Your task to perform on an android device: change alarm snooze length Image 0: 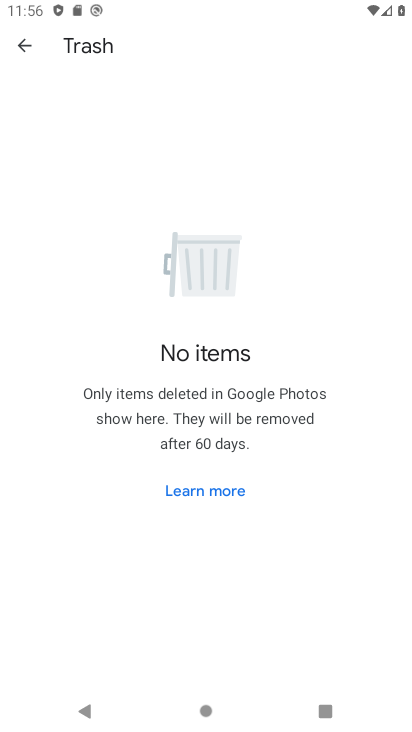
Step 0: press home button
Your task to perform on an android device: change alarm snooze length Image 1: 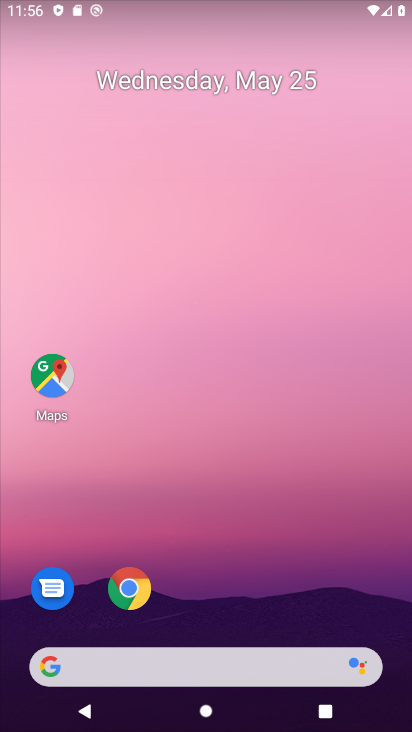
Step 1: drag from (164, 647) to (289, 130)
Your task to perform on an android device: change alarm snooze length Image 2: 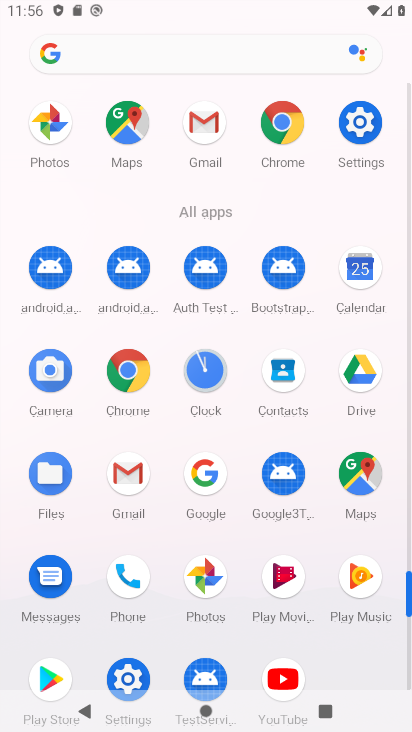
Step 2: click (200, 381)
Your task to perform on an android device: change alarm snooze length Image 3: 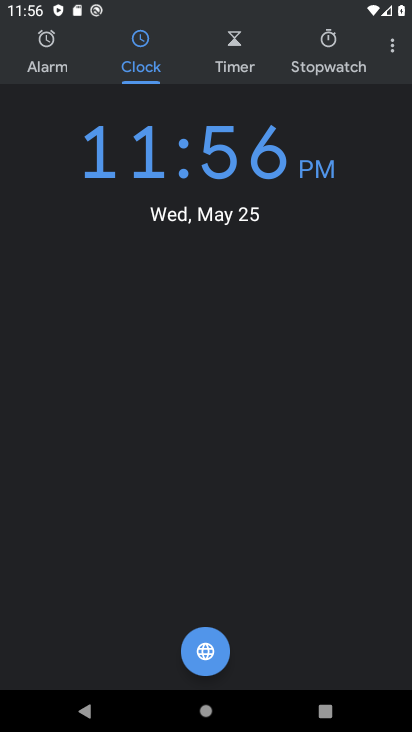
Step 3: click (402, 52)
Your task to perform on an android device: change alarm snooze length Image 4: 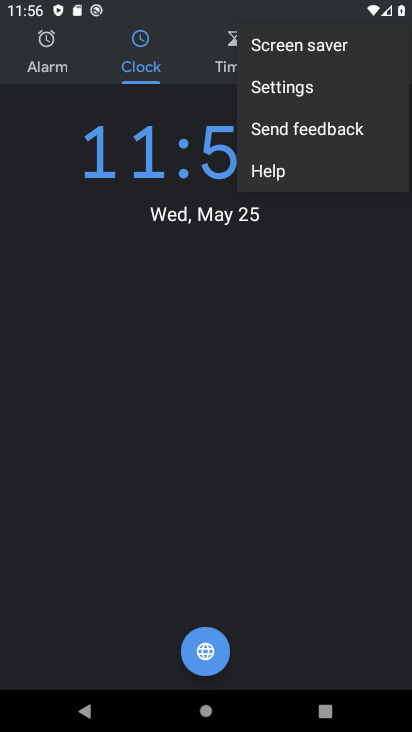
Step 4: click (366, 88)
Your task to perform on an android device: change alarm snooze length Image 5: 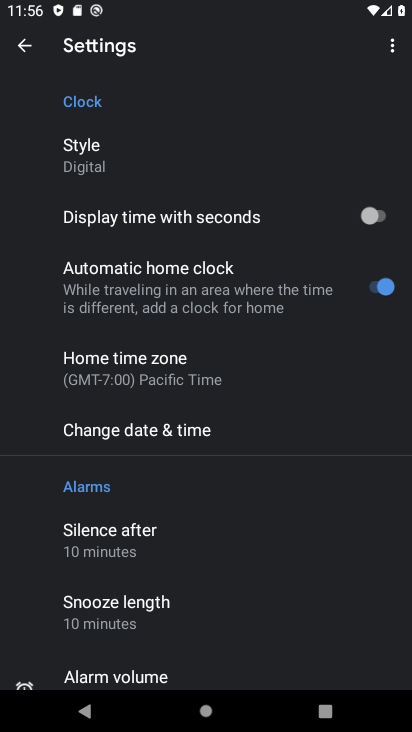
Step 5: drag from (244, 584) to (371, 269)
Your task to perform on an android device: change alarm snooze length Image 6: 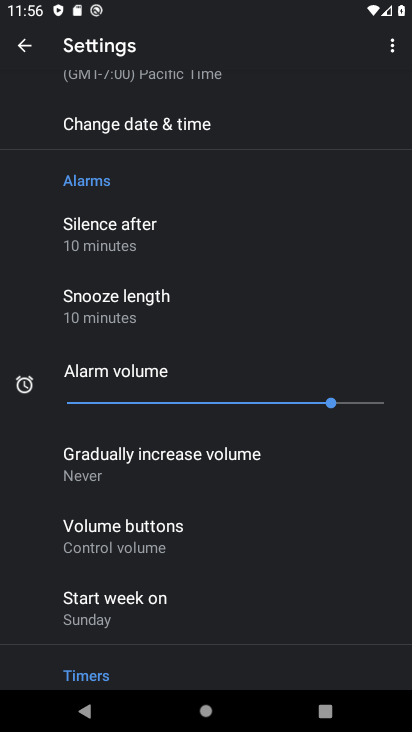
Step 6: click (157, 302)
Your task to perform on an android device: change alarm snooze length Image 7: 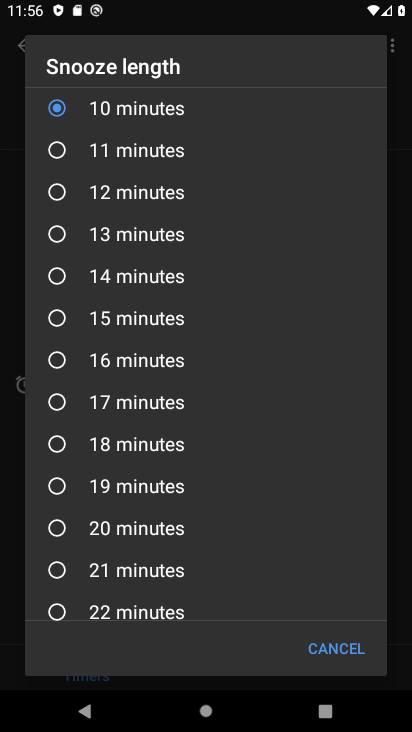
Step 7: click (143, 538)
Your task to perform on an android device: change alarm snooze length Image 8: 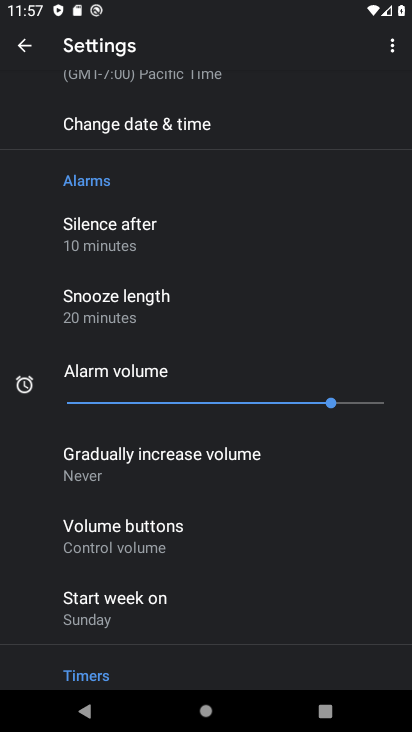
Step 8: task complete